Your task to perform on an android device: Open calendar and show me the third week of next month Image 0: 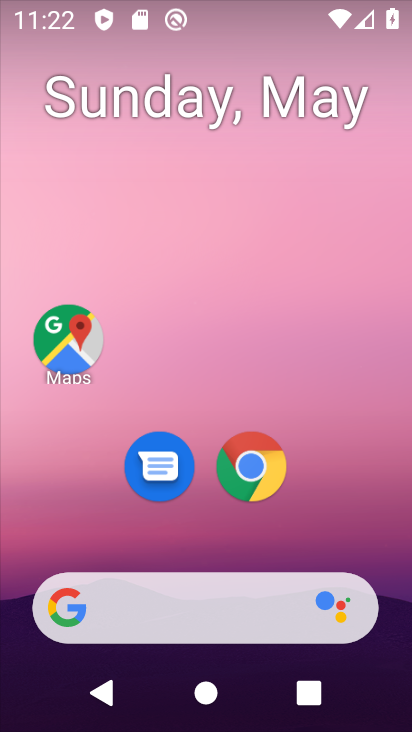
Step 0: drag from (235, 337) to (222, 70)
Your task to perform on an android device: Open calendar and show me the third week of next month Image 1: 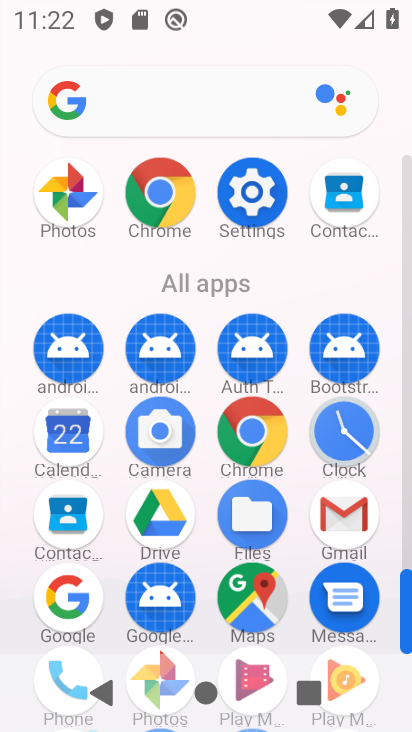
Step 1: click (76, 438)
Your task to perform on an android device: Open calendar and show me the third week of next month Image 2: 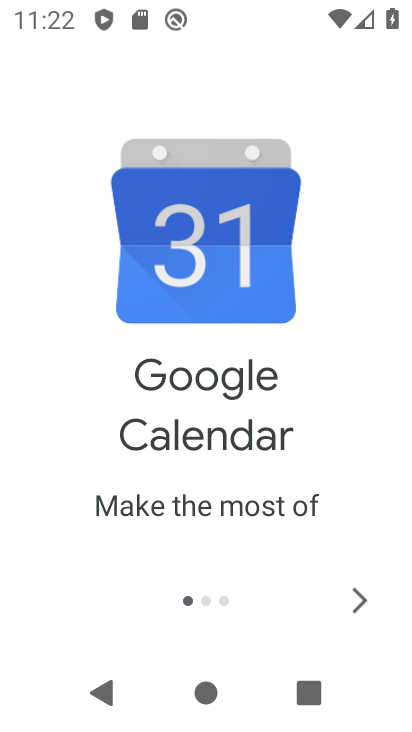
Step 2: click (355, 625)
Your task to perform on an android device: Open calendar and show me the third week of next month Image 3: 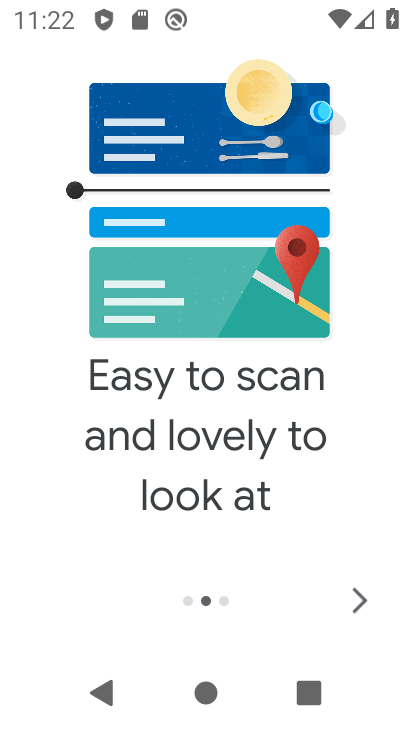
Step 3: click (355, 607)
Your task to perform on an android device: Open calendar and show me the third week of next month Image 4: 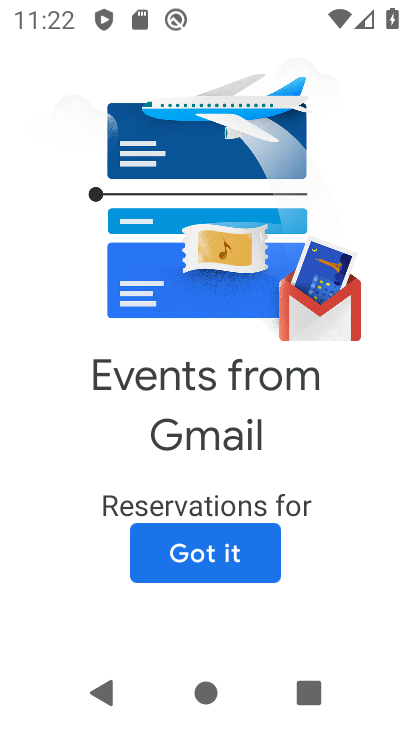
Step 4: click (208, 553)
Your task to perform on an android device: Open calendar and show me the third week of next month Image 5: 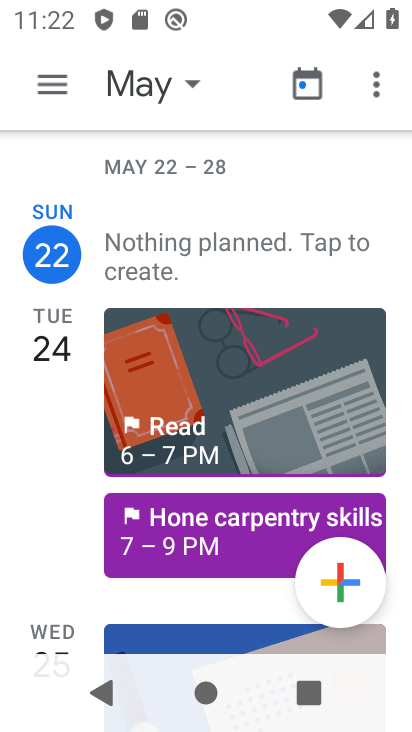
Step 5: click (162, 96)
Your task to perform on an android device: Open calendar and show me the third week of next month Image 6: 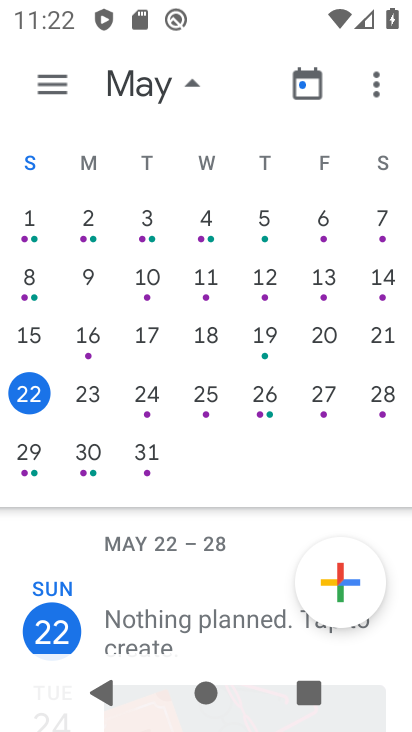
Step 6: drag from (383, 467) to (10, 448)
Your task to perform on an android device: Open calendar and show me the third week of next month Image 7: 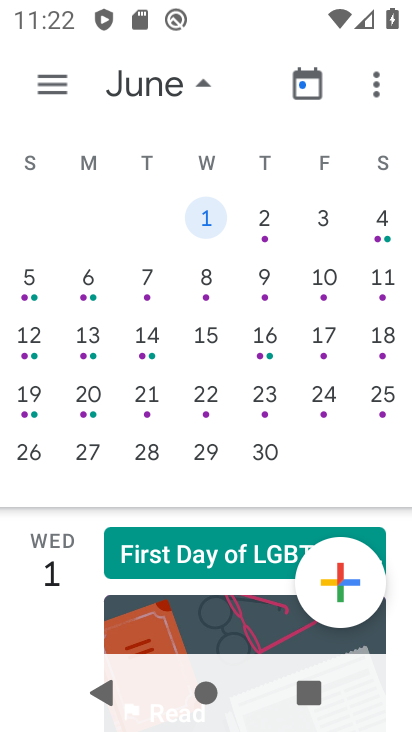
Step 7: click (207, 338)
Your task to perform on an android device: Open calendar and show me the third week of next month Image 8: 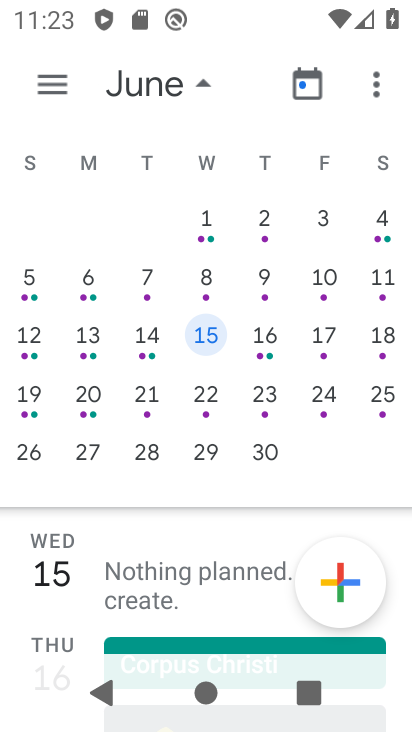
Step 8: task complete